Your task to perform on an android device: turn off location Image 0: 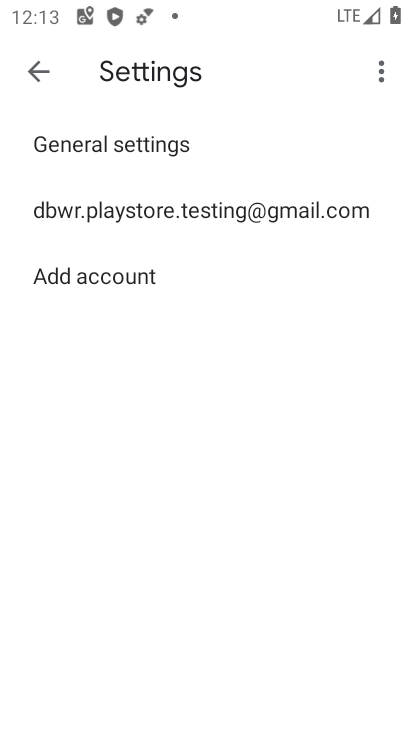
Step 0: press home button
Your task to perform on an android device: turn off location Image 1: 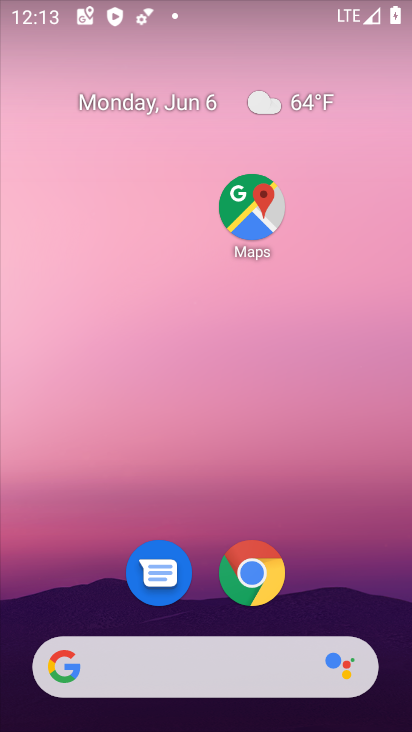
Step 1: drag from (227, 509) to (143, 60)
Your task to perform on an android device: turn off location Image 2: 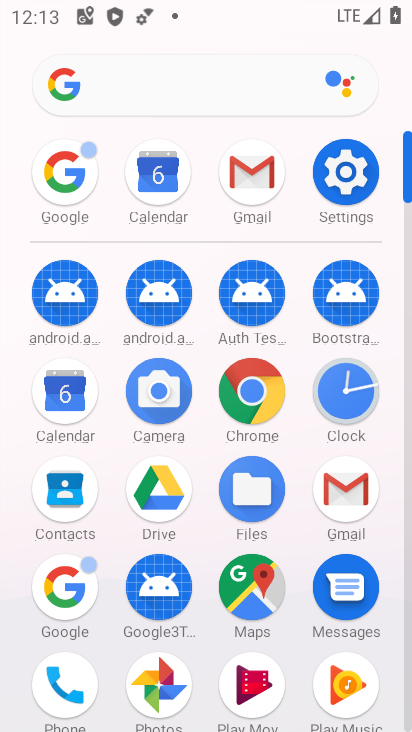
Step 2: drag from (211, 255) to (192, 29)
Your task to perform on an android device: turn off location Image 3: 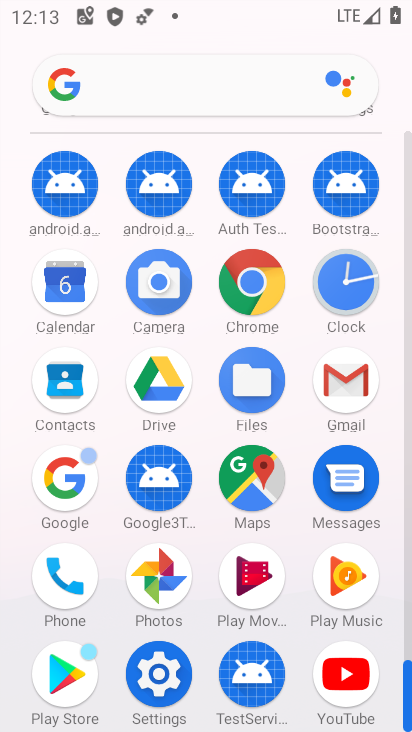
Step 3: click (159, 671)
Your task to perform on an android device: turn off location Image 4: 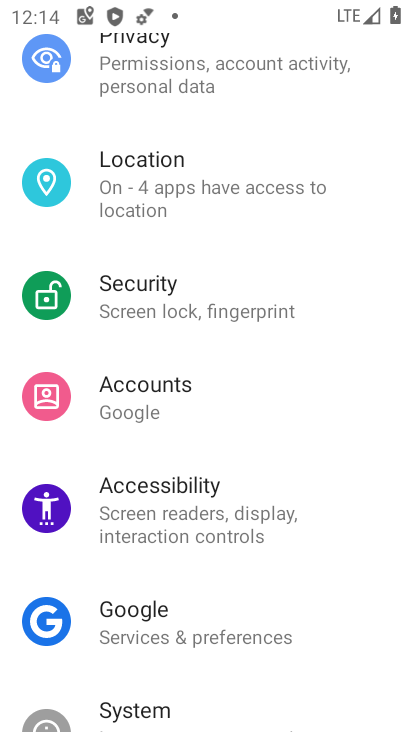
Step 4: click (181, 199)
Your task to perform on an android device: turn off location Image 5: 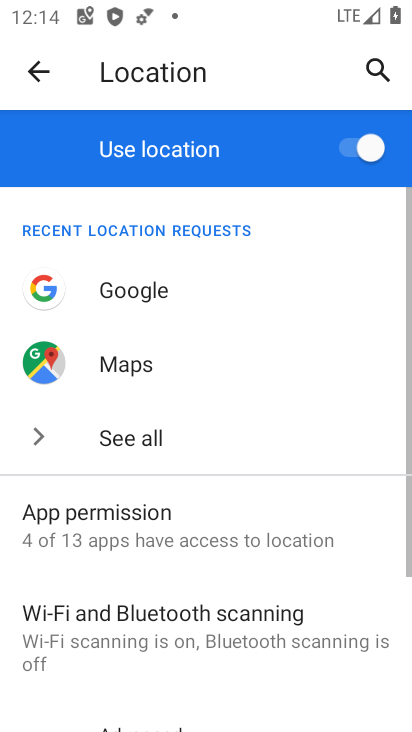
Step 5: click (357, 153)
Your task to perform on an android device: turn off location Image 6: 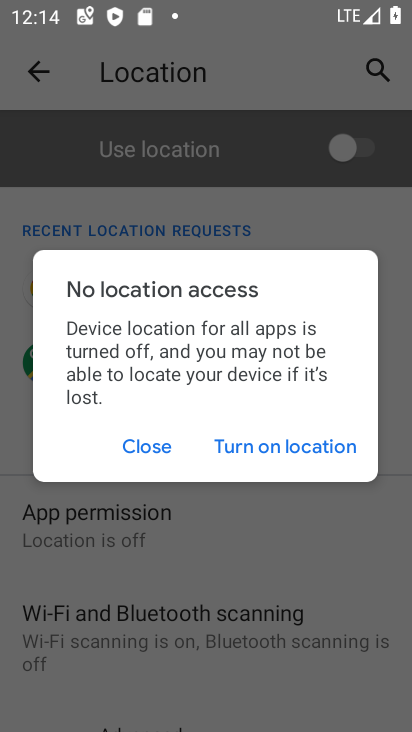
Step 6: click (151, 451)
Your task to perform on an android device: turn off location Image 7: 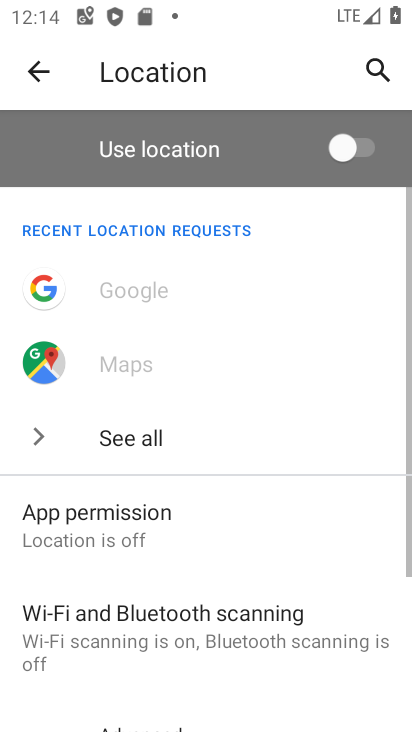
Step 7: task complete